Your task to perform on an android device: check battery use Image 0: 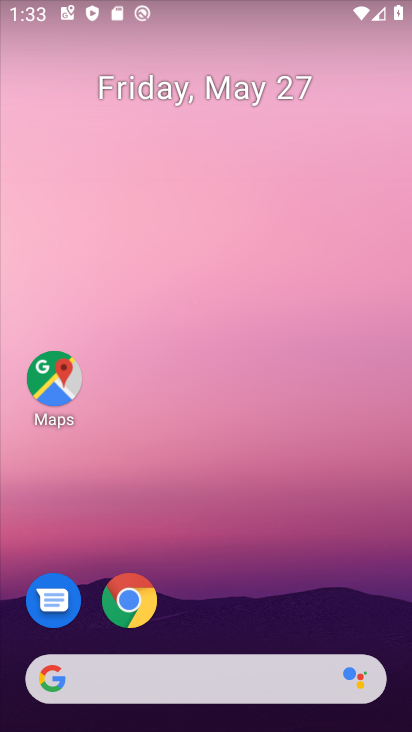
Step 0: drag from (226, 558) to (239, 102)
Your task to perform on an android device: check battery use Image 1: 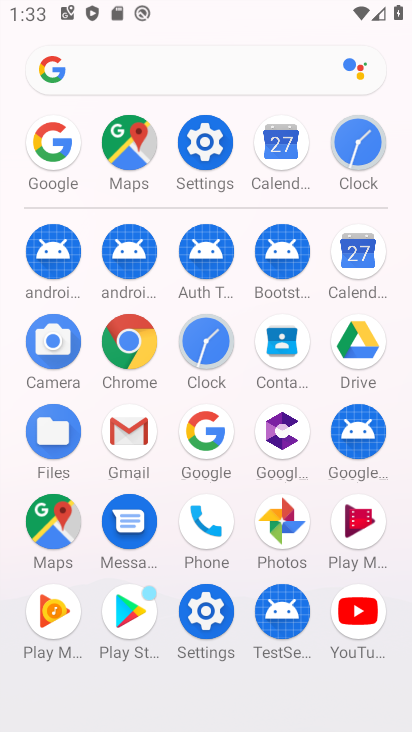
Step 1: click (215, 148)
Your task to perform on an android device: check battery use Image 2: 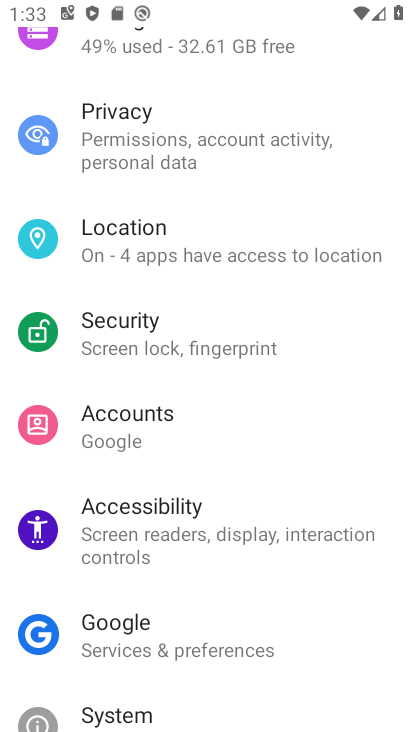
Step 2: drag from (208, 623) to (239, 241)
Your task to perform on an android device: check battery use Image 3: 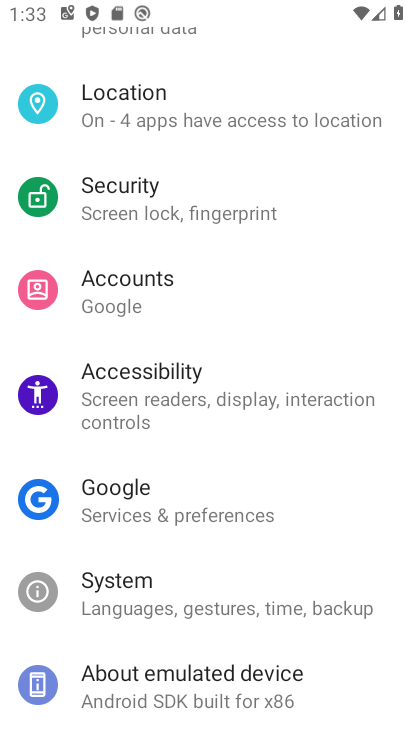
Step 3: drag from (223, 103) to (185, 526)
Your task to perform on an android device: check battery use Image 4: 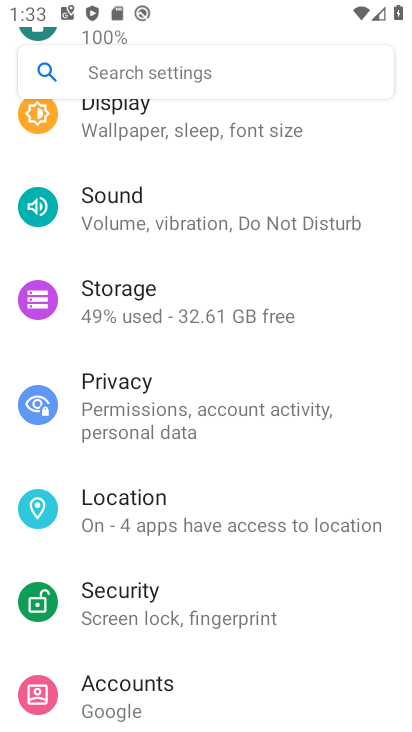
Step 4: drag from (191, 120) to (183, 576)
Your task to perform on an android device: check battery use Image 5: 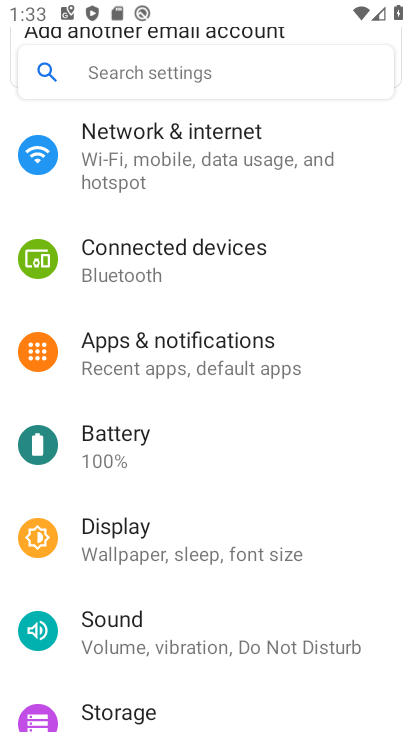
Step 5: click (107, 451)
Your task to perform on an android device: check battery use Image 6: 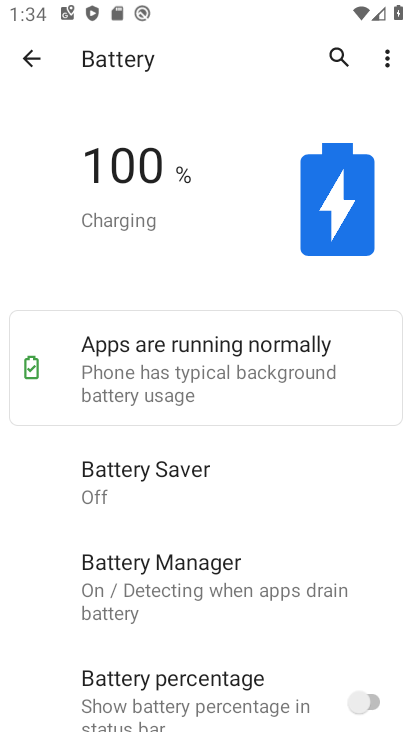
Step 6: click (385, 56)
Your task to perform on an android device: check battery use Image 7: 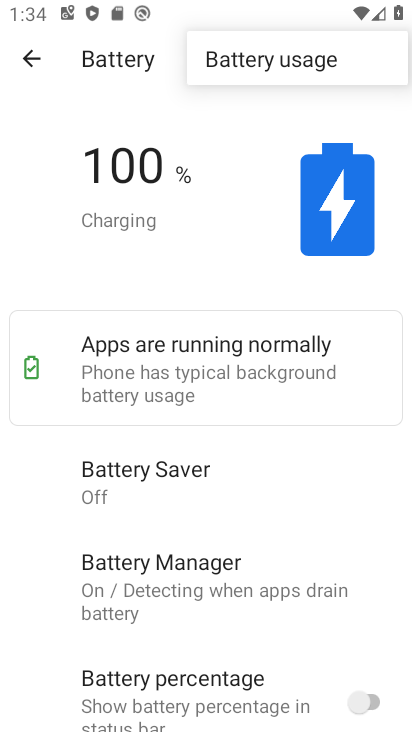
Step 7: click (265, 62)
Your task to perform on an android device: check battery use Image 8: 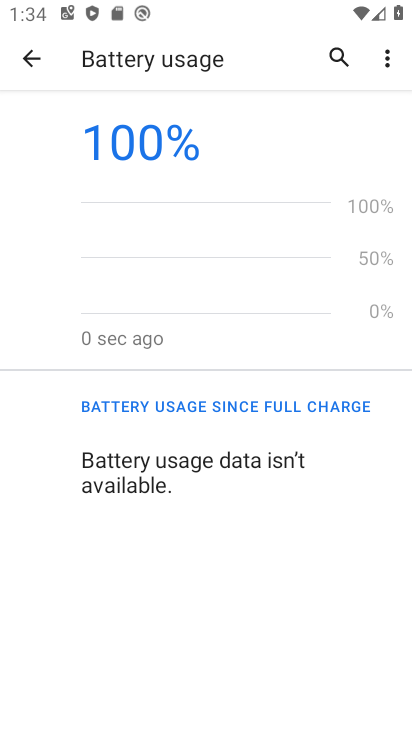
Step 8: task complete